Your task to perform on an android device: Search for vegetarian restaurants on Maps Image 0: 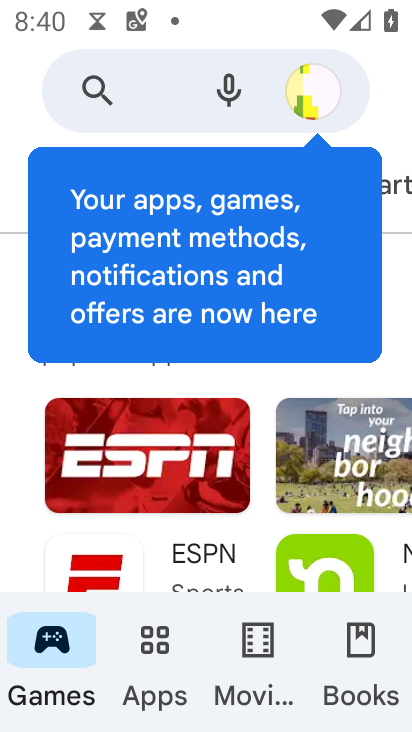
Step 0: press home button
Your task to perform on an android device: Search for vegetarian restaurants on Maps Image 1: 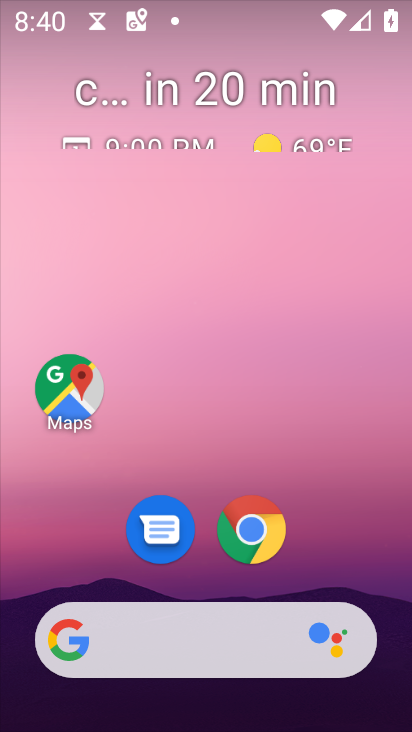
Step 1: click (75, 389)
Your task to perform on an android device: Search for vegetarian restaurants on Maps Image 2: 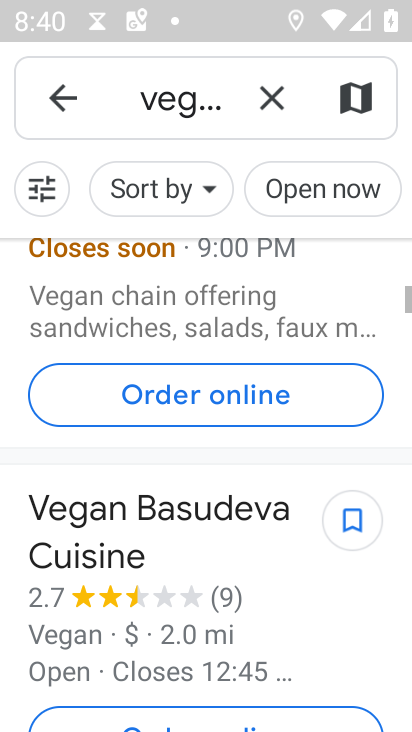
Step 2: task complete